Your task to perform on an android device: turn off javascript in the chrome app Image 0: 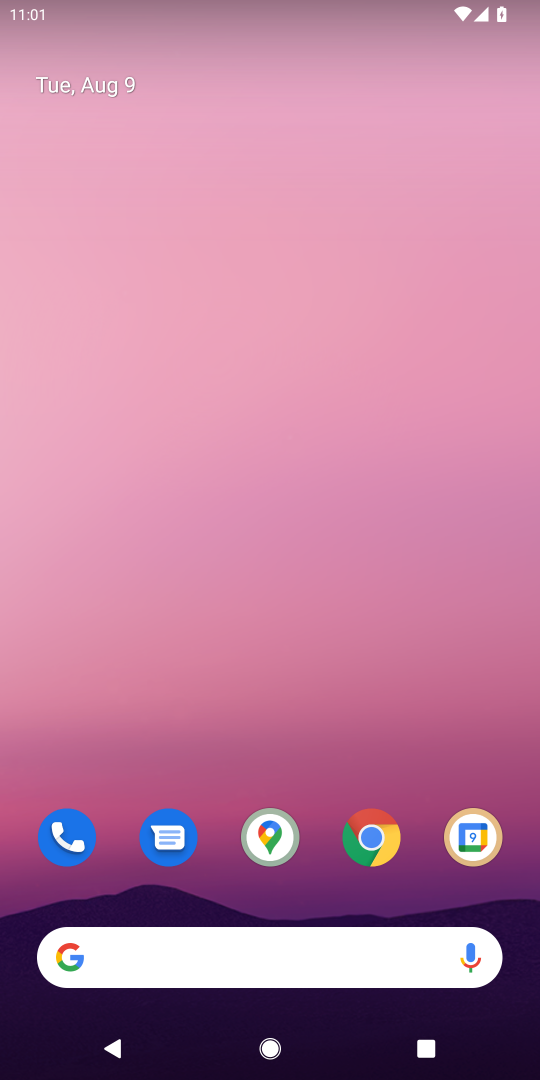
Step 0: click (383, 842)
Your task to perform on an android device: turn off javascript in the chrome app Image 1: 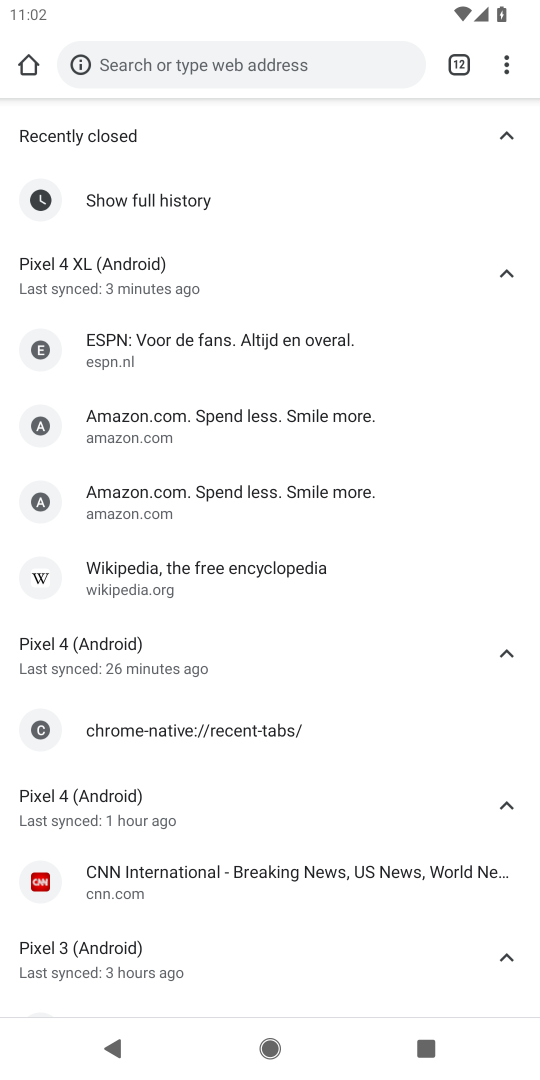
Step 1: click (508, 70)
Your task to perform on an android device: turn off javascript in the chrome app Image 2: 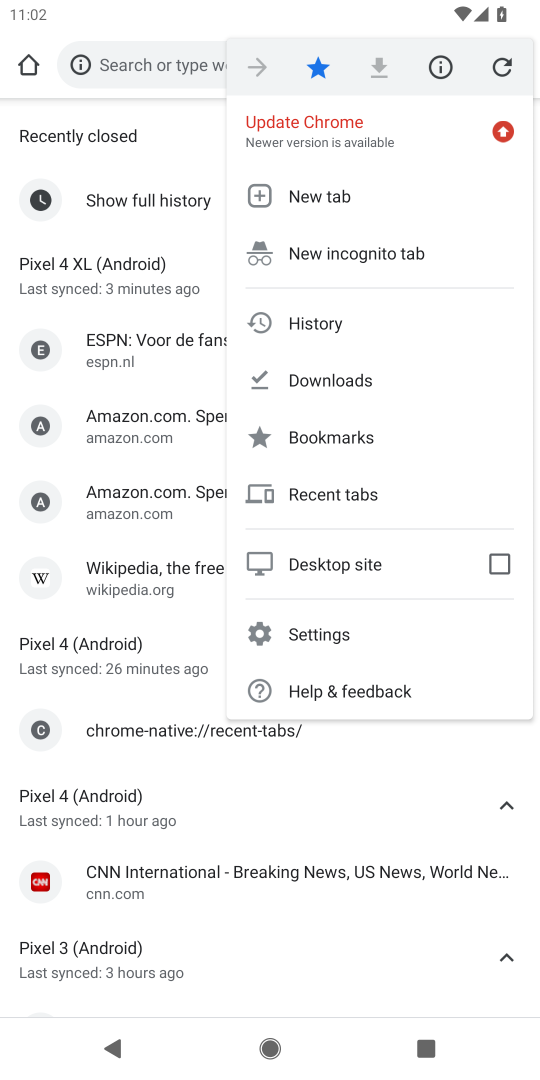
Step 2: click (310, 634)
Your task to perform on an android device: turn off javascript in the chrome app Image 3: 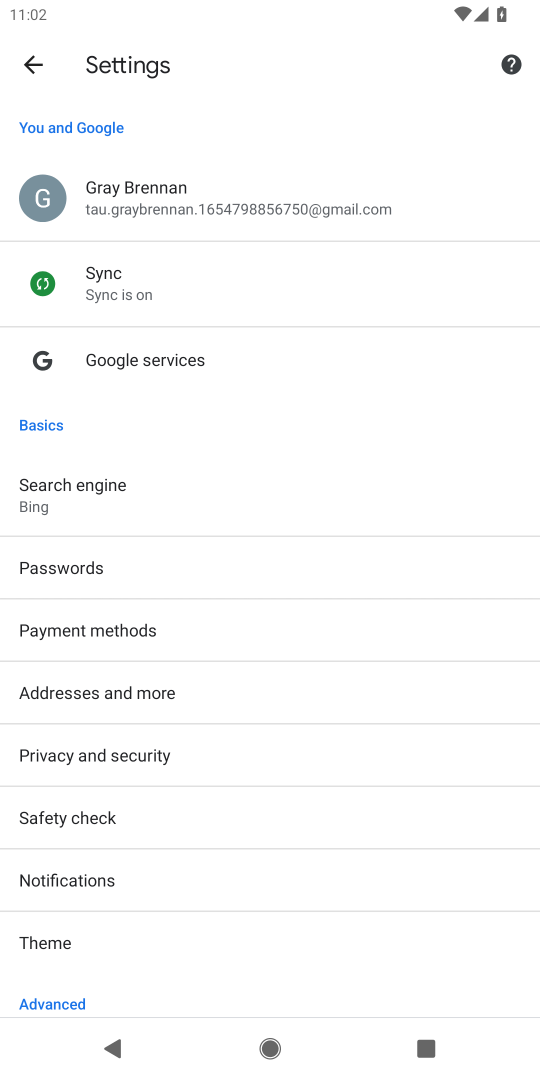
Step 3: drag from (132, 937) to (114, 555)
Your task to perform on an android device: turn off javascript in the chrome app Image 4: 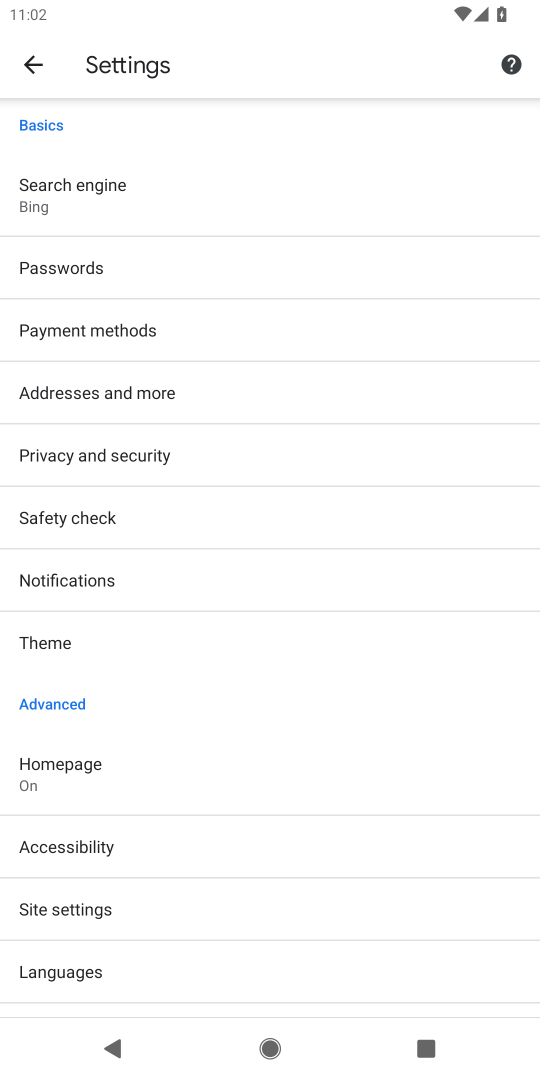
Step 4: click (104, 906)
Your task to perform on an android device: turn off javascript in the chrome app Image 5: 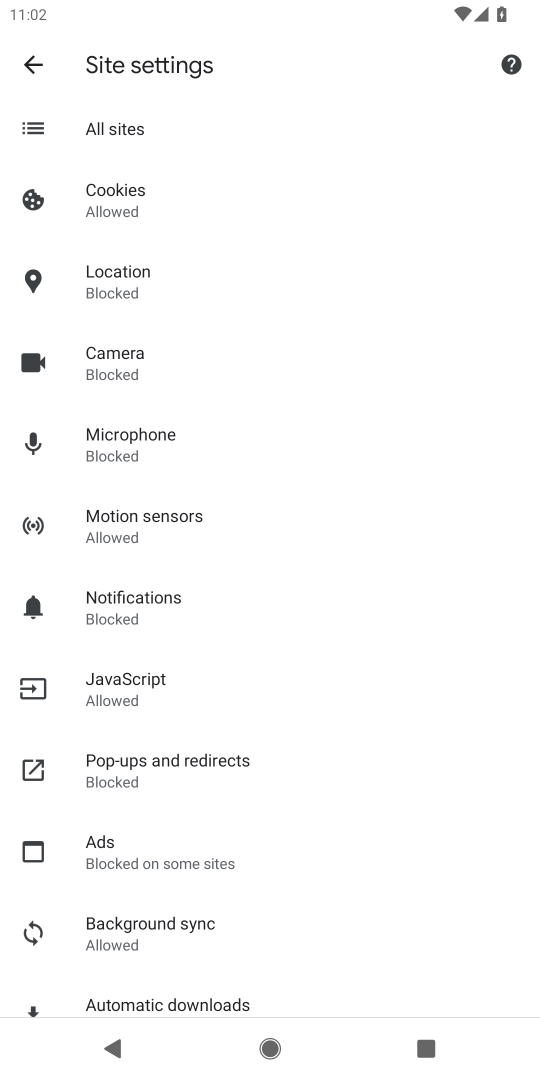
Step 5: click (142, 698)
Your task to perform on an android device: turn off javascript in the chrome app Image 6: 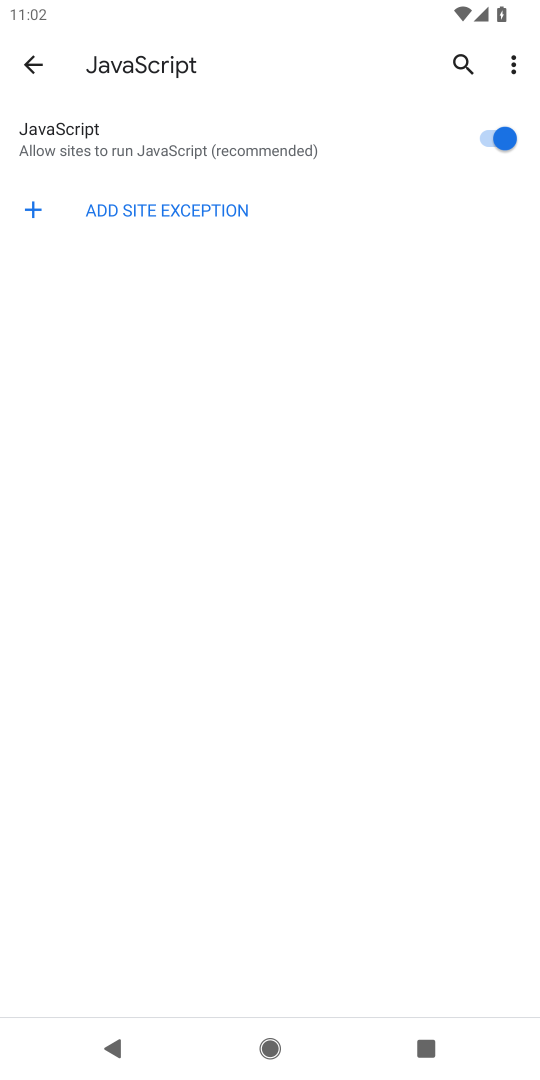
Step 6: click (485, 132)
Your task to perform on an android device: turn off javascript in the chrome app Image 7: 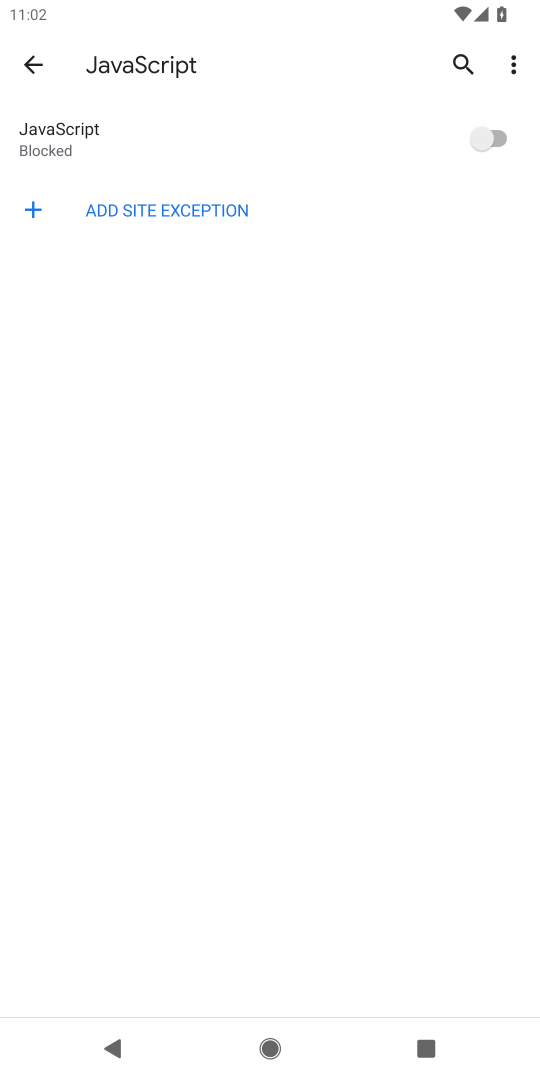
Step 7: task complete